Your task to perform on an android device: Do I have any events today? Image 0: 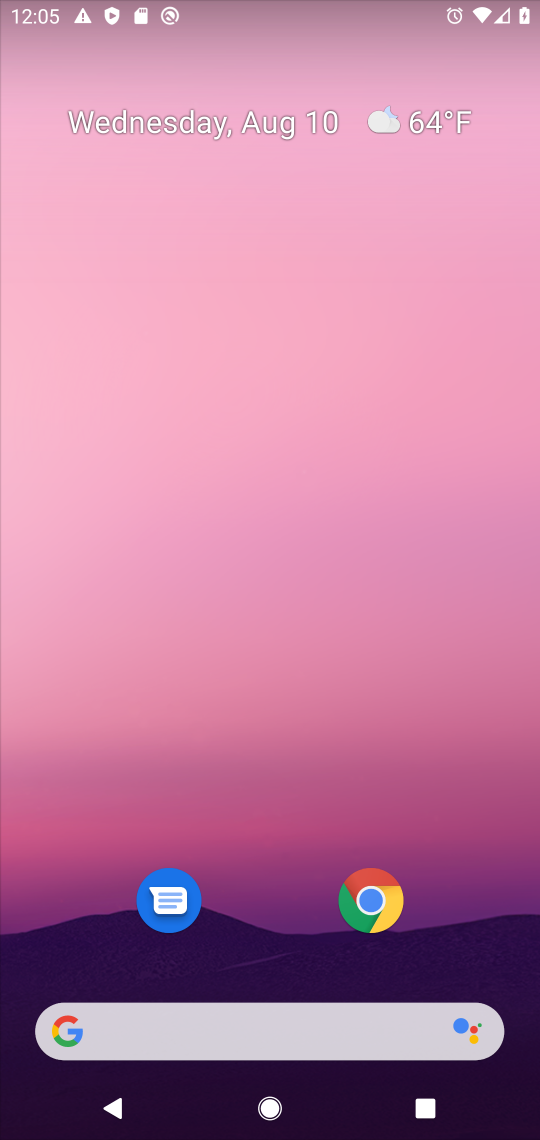
Step 0: drag from (271, 883) to (334, 9)
Your task to perform on an android device: Do I have any events today? Image 1: 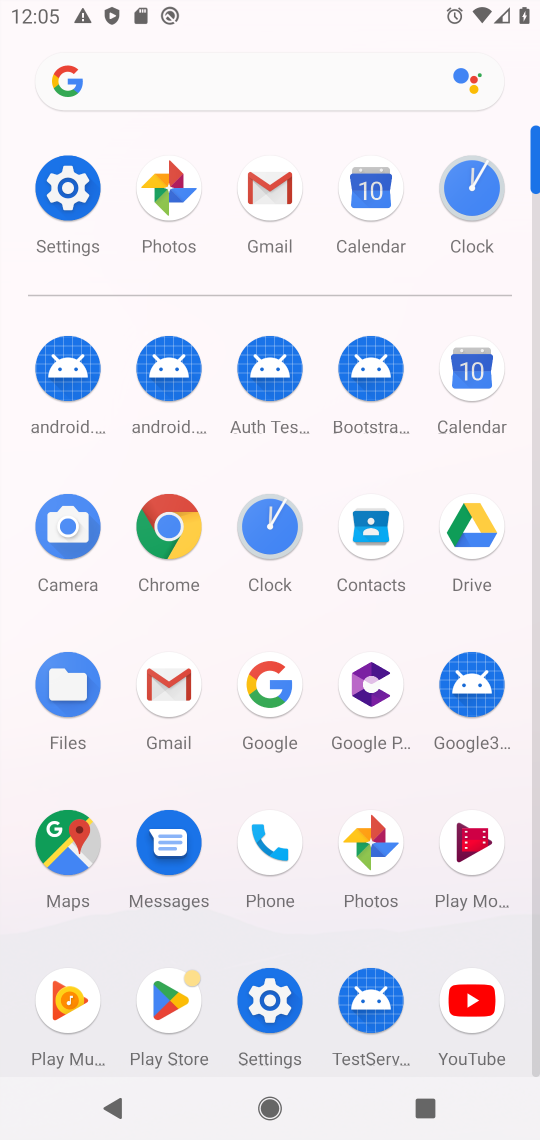
Step 1: click (367, 194)
Your task to perform on an android device: Do I have any events today? Image 2: 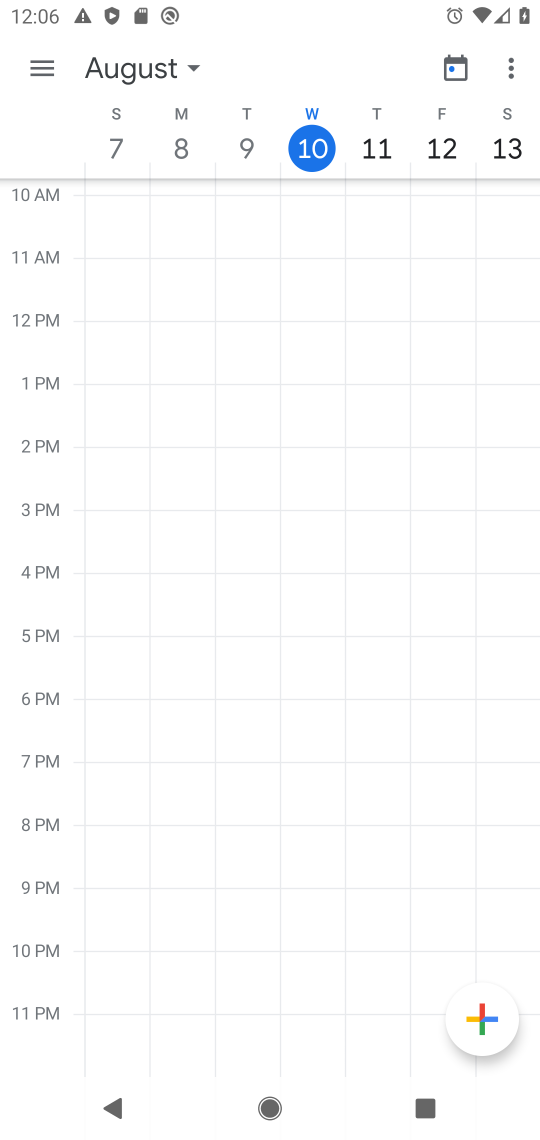
Step 2: task complete